Your task to perform on an android device: Open eBay Image 0: 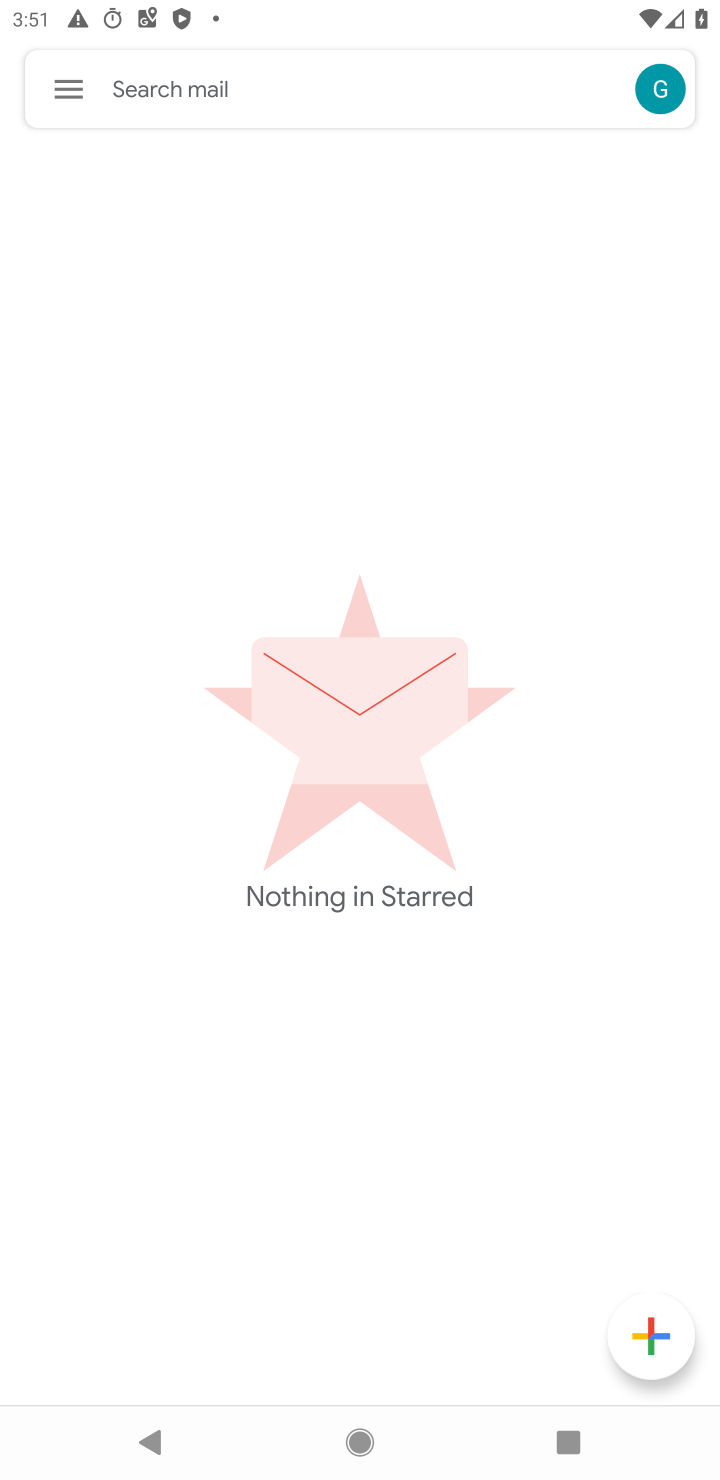
Step 0: press home button
Your task to perform on an android device: Open eBay Image 1: 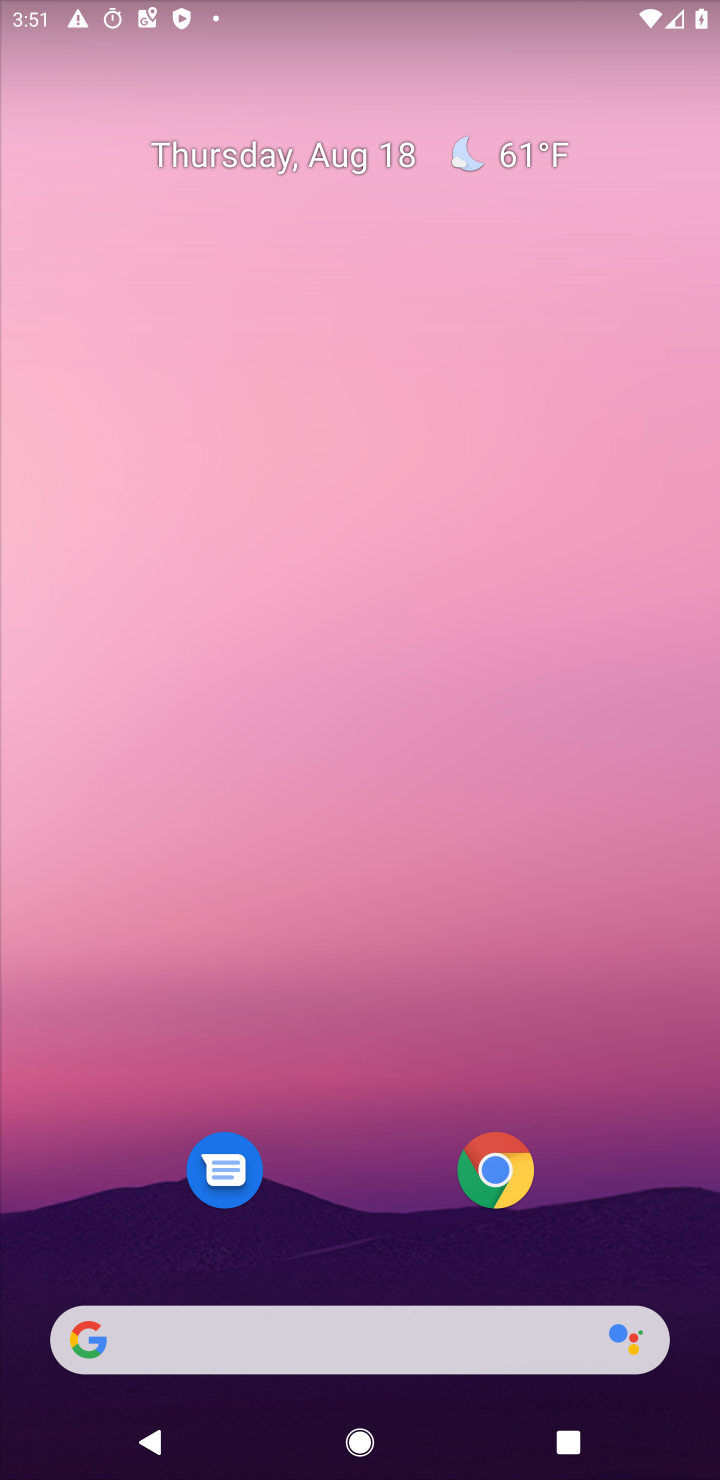
Step 1: click (199, 1414)
Your task to perform on an android device: Open eBay Image 2: 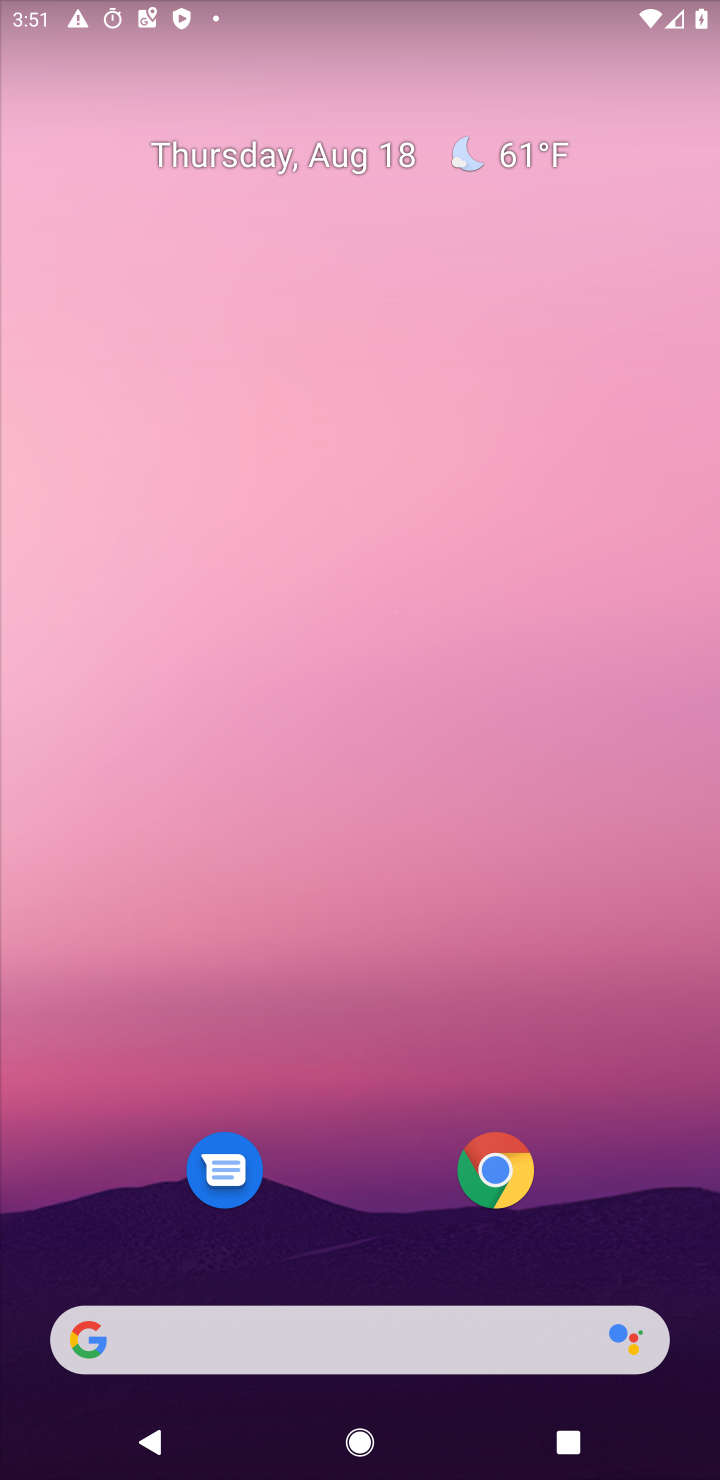
Step 2: click (203, 1365)
Your task to perform on an android device: Open eBay Image 3: 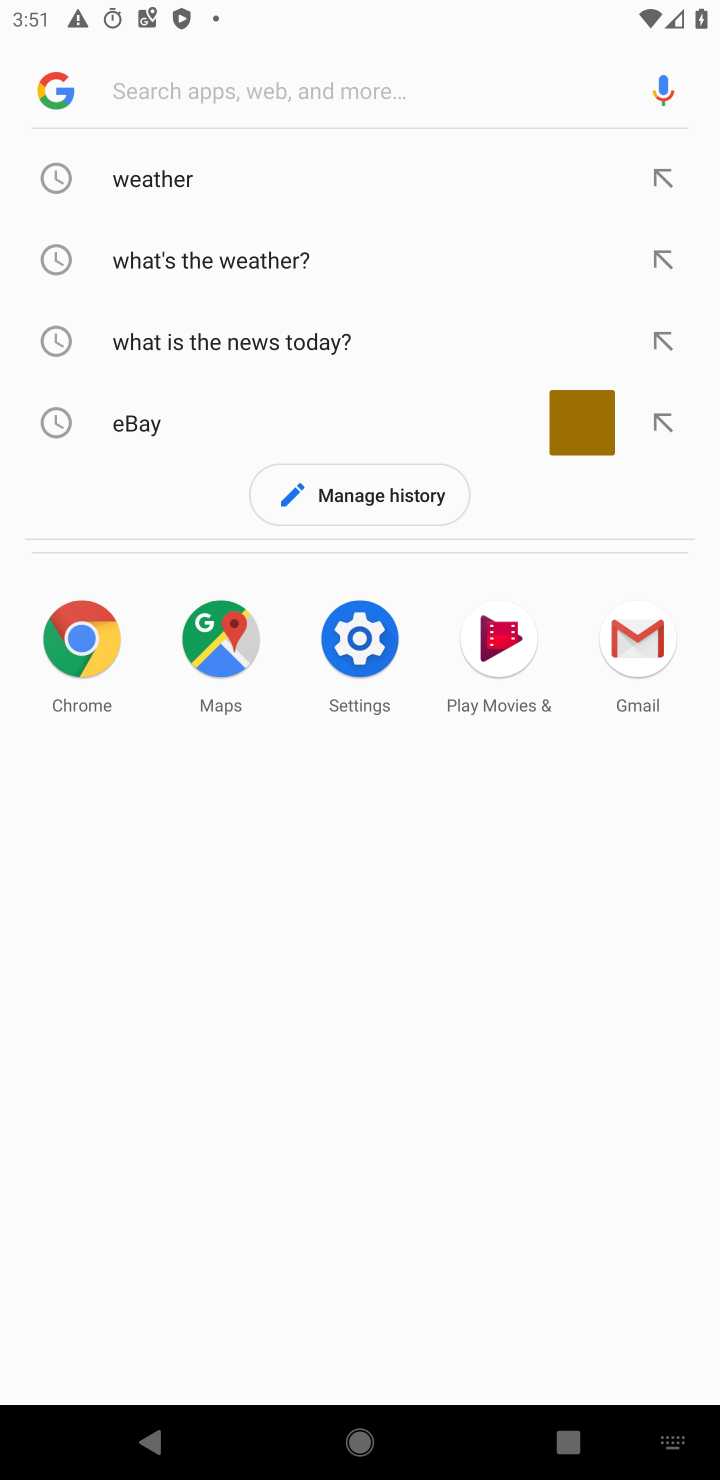
Step 3: click (180, 1335)
Your task to perform on an android device: Open eBay Image 4: 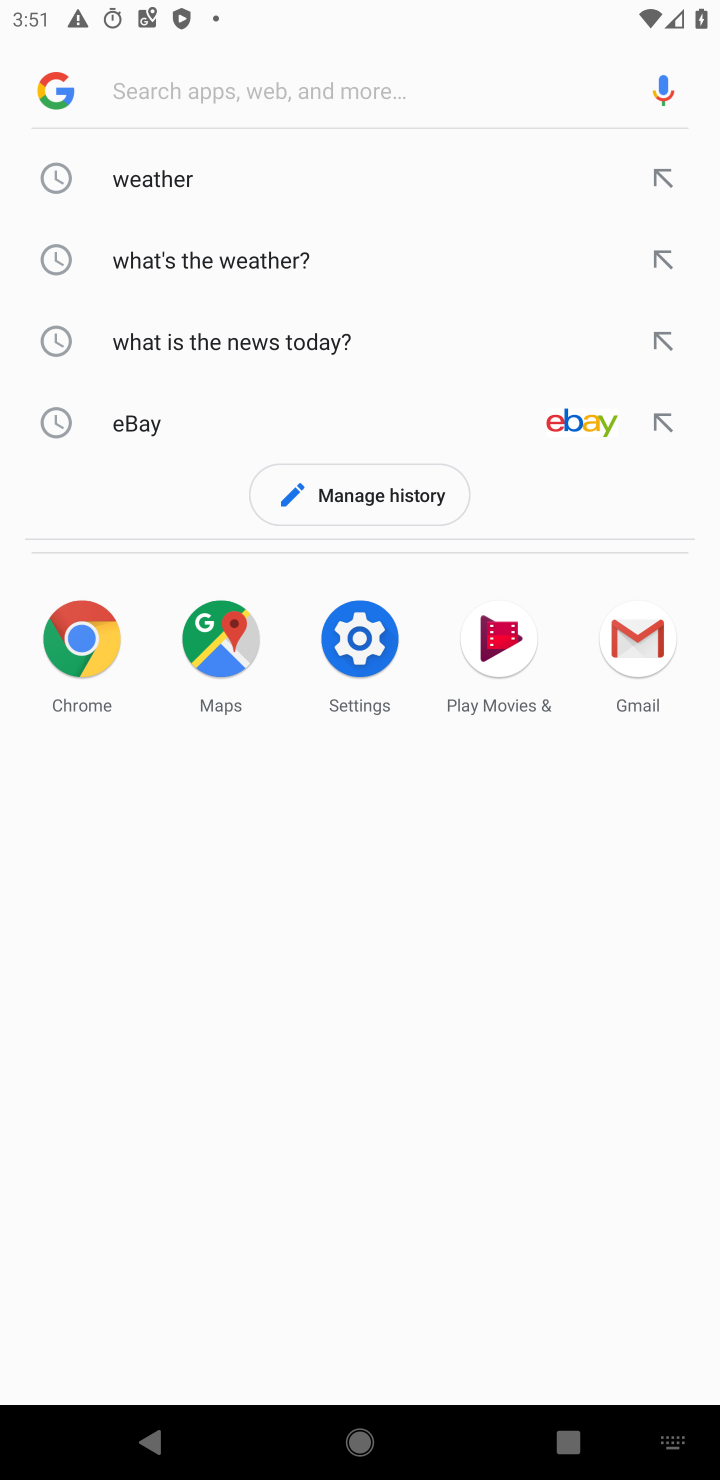
Step 4: type "eBay"
Your task to perform on an android device: Open eBay Image 5: 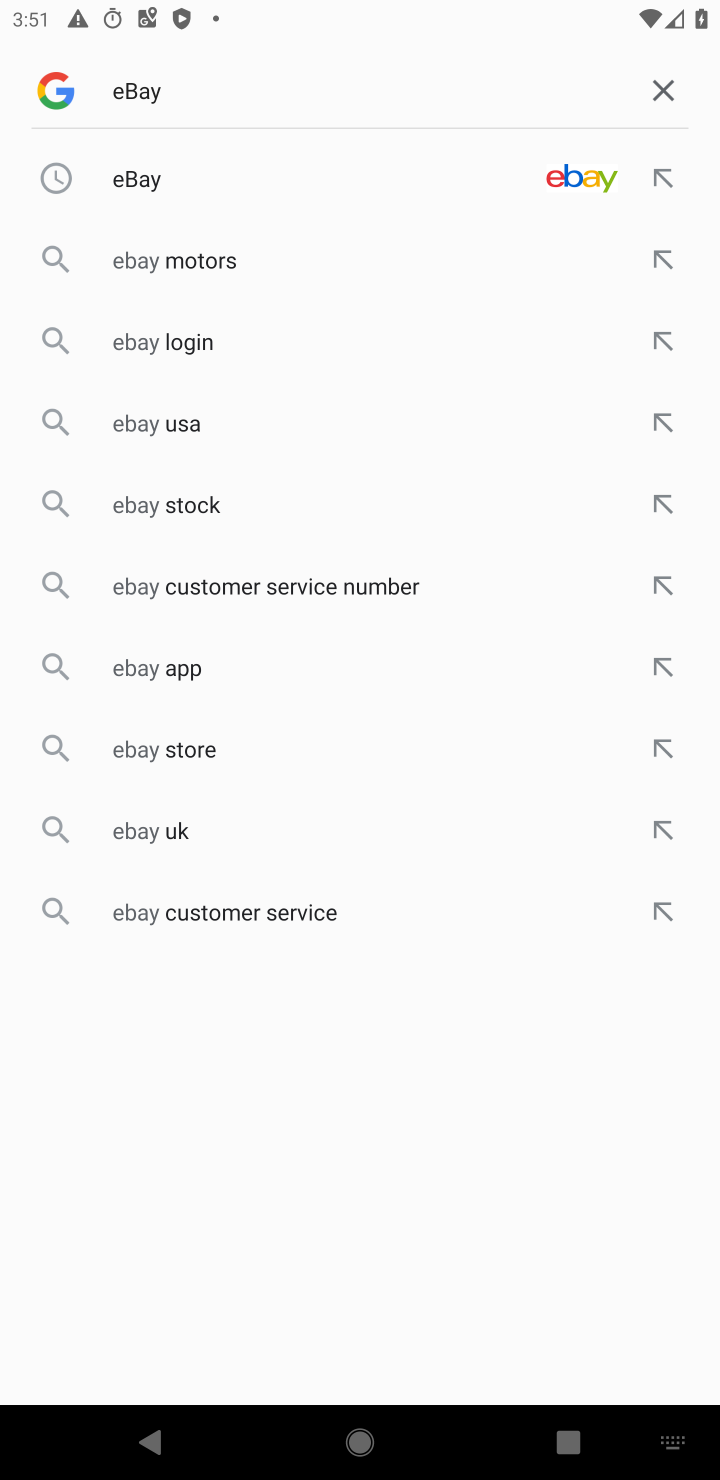
Step 5: click (157, 171)
Your task to perform on an android device: Open eBay Image 6: 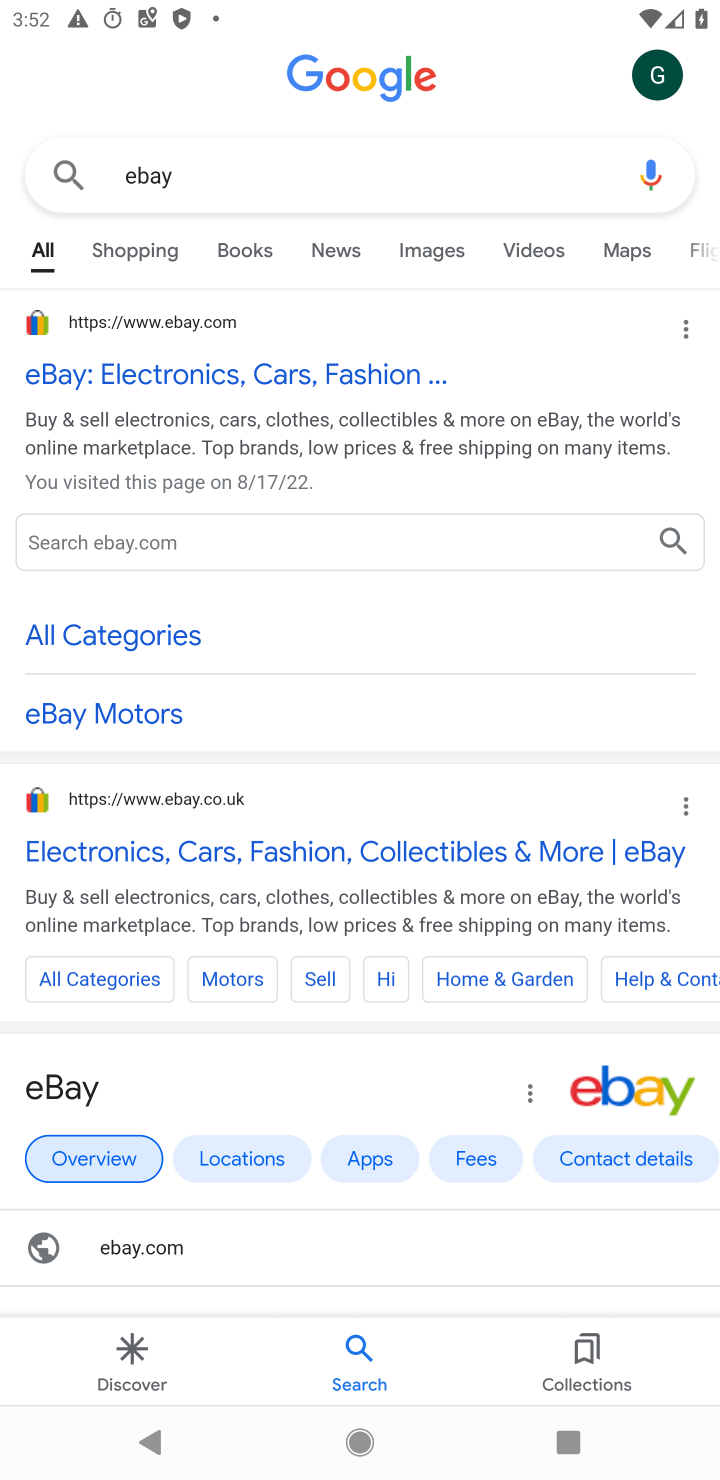
Step 6: task complete